Your task to perform on an android device: Search for seafood restaurants on Google Maps Image 0: 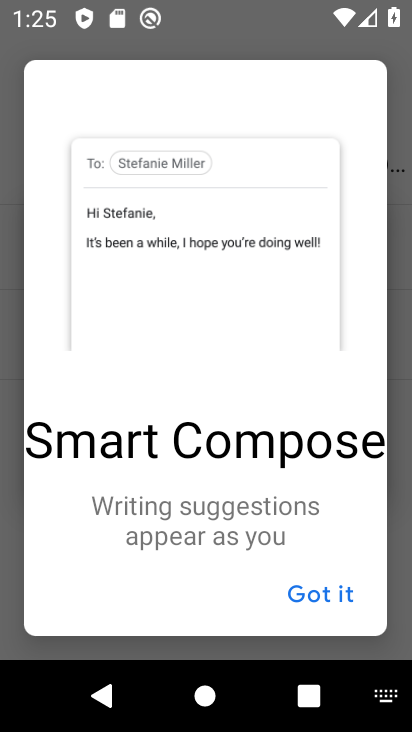
Step 0: press home button
Your task to perform on an android device: Search for seafood restaurants on Google Maps Image 1: 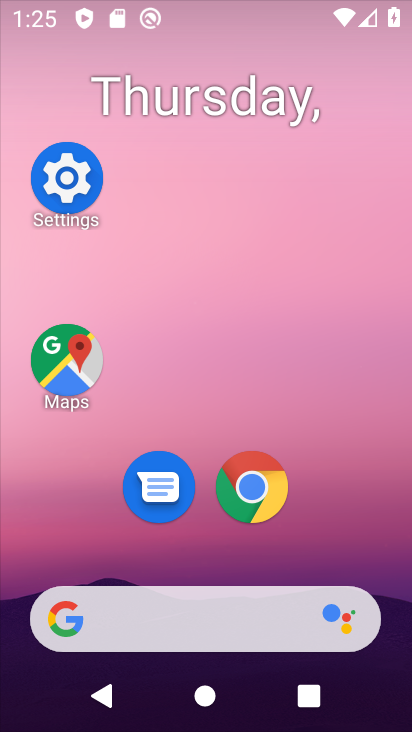
Step 1: drag from (292, 559) to (199, 118)
Your task to perform on an android device: Search for seafood restaurants on Google Maps Image 2: 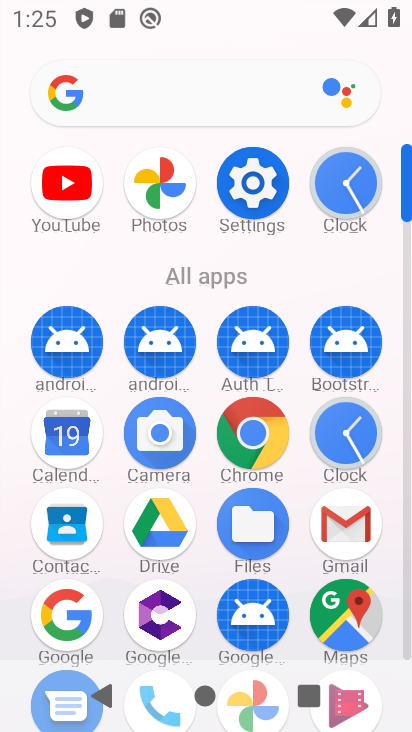
Step 2: drag from (201, 531) to (166, 285)
Your task to perform on an android device: Search for seafood restaurants on Google Maps Image 3: 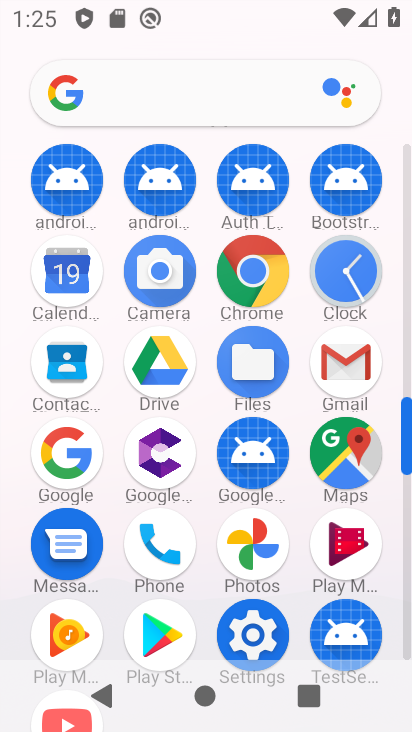
Step 3: click (355, 455)
Your task to perform on an android device: Search for seafood restaurants on Google Maps Image 4: 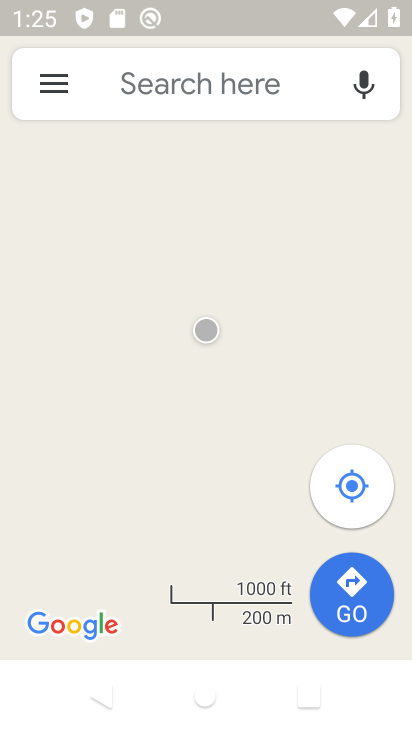
Step 4: click (206, 88)
Your task to perform on an android device: Search for seafood restaurants on Google Maps Image 5: 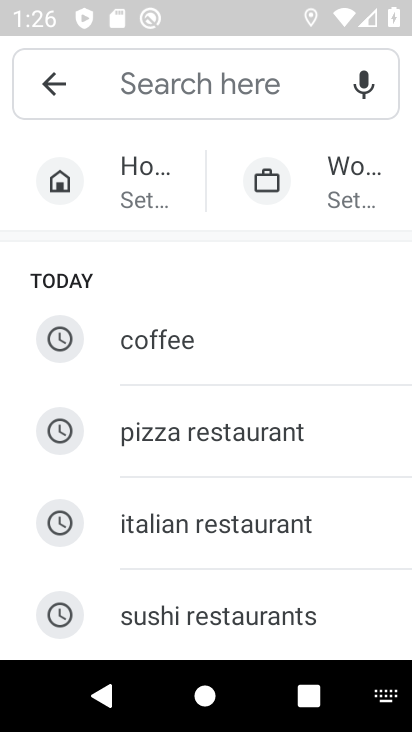
Step 5: drag from (235, 598) to (208, 242)
Your task to perform on an android device: Search for seafood restaurants on Google Maps Image 6: 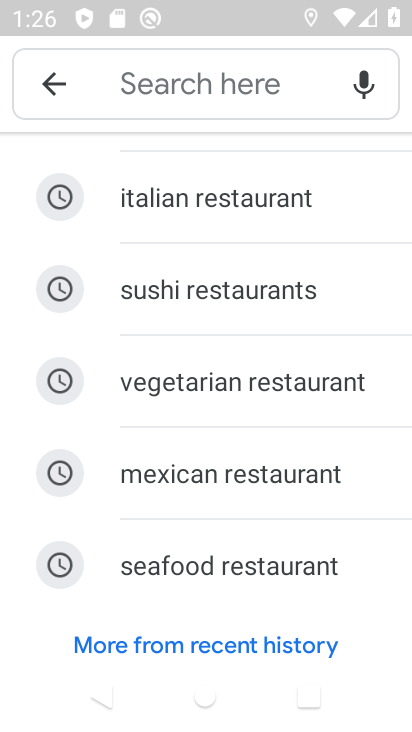
Step 6: click (316, 561)
Your task to perform on an android device: Search for seafood restaurants on Google Maps Image 7: 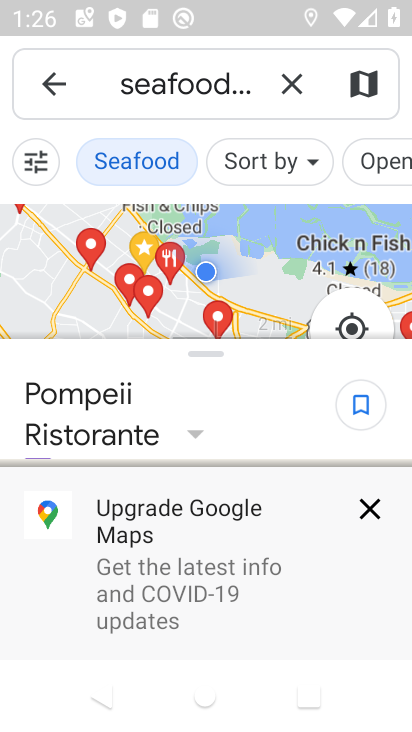
Step 7: task complete